Your task to perform on an android device: Set the phone to "Do not disturb". Image 0: 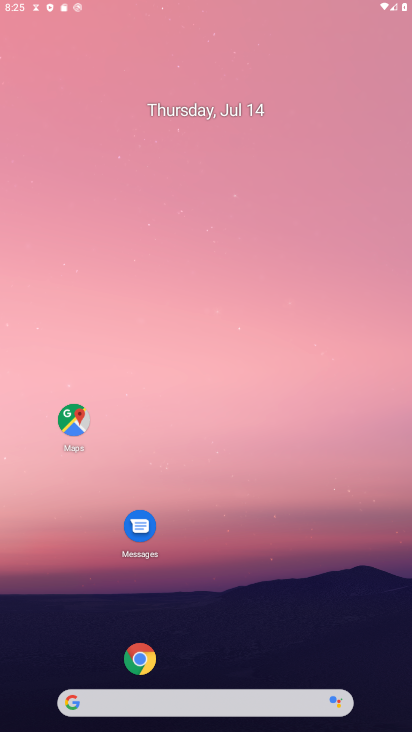
Step 0: click (164, 483)
Your task to perform on an android device: Set the phone to "Do not disturb". Image 1: 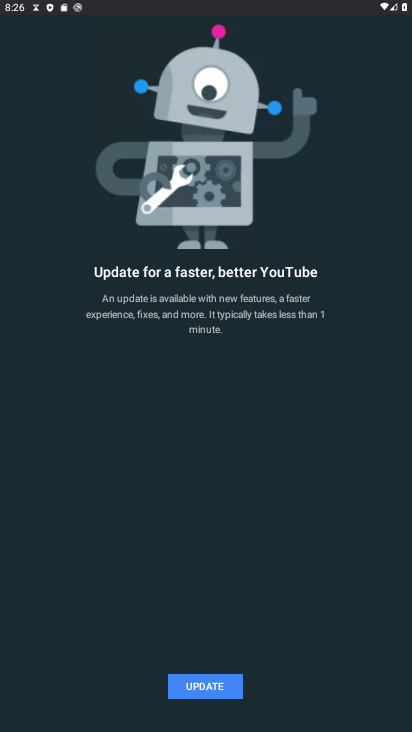
Step 1: press home button
Your task to perform on an android device: Set the phone to "Do not disturb". Image 2: 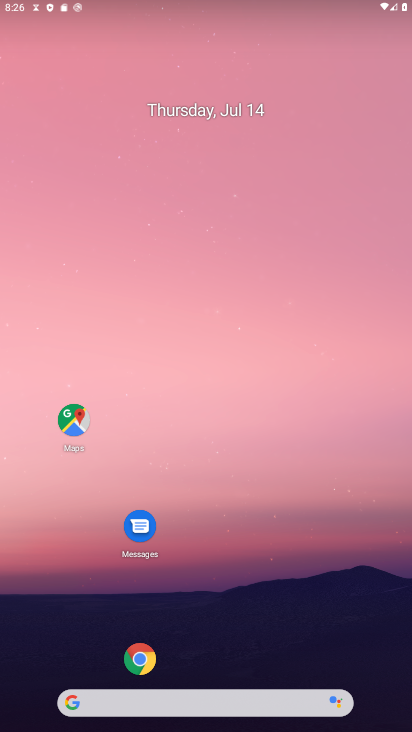
Step 2: drag from (146, 706) to (152, 471)
Your task to perform on an android device: Set the phone to "Do not disturb". Image 3: 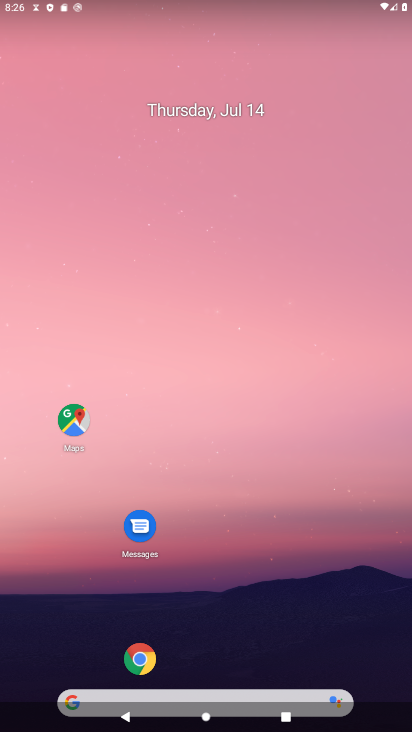
Step 3: drag from (135, 683) to (195, 393)
Your task to perform on an android device: Set the phone to "Do not disturb". Image 4: 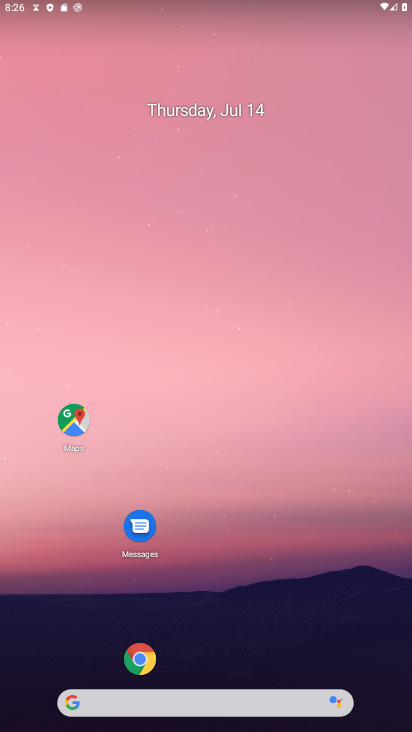
Step 4: drag from (140, 692) to (219, 376)
Your task to perform on an android device: Set the phone to "Do not disturb". Image 5: 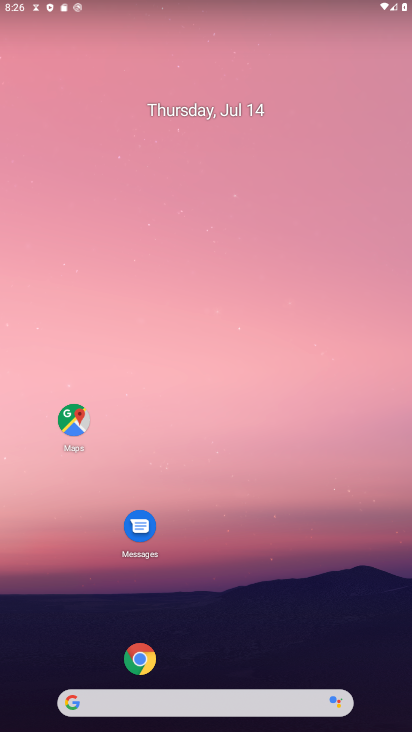
Step 5: drag from (254, 674) to (325, 108)
Your task to perform on an android device: Set the phone to "Do not disturb". Image 6: 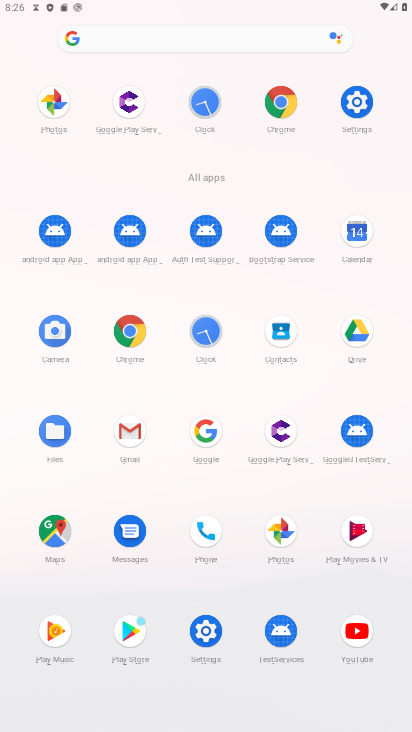
Step 6: click (351, 90)
Your task to perform on an android device: Set the phone to "Do not disturb". Image 7: 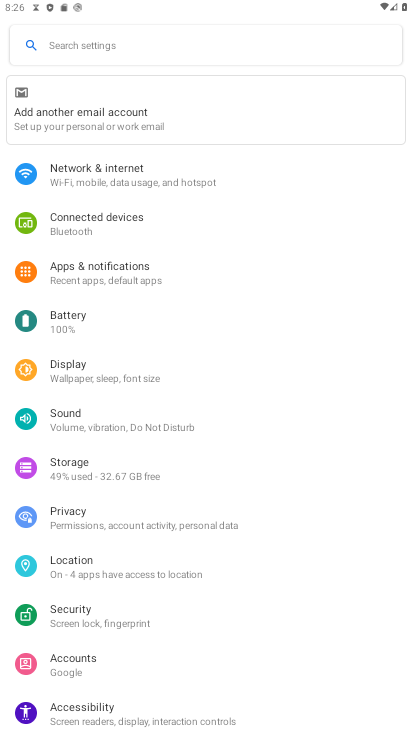
Step 7: click (114, 414)
Your task to perform on an android device: Set the phone to "Do not disturb". Image 8: 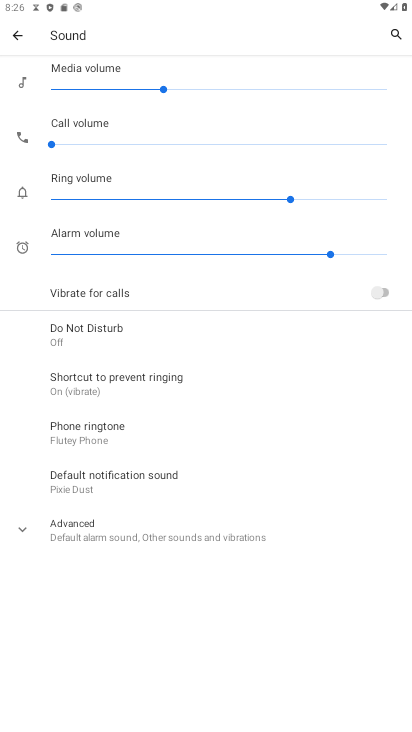
Step 8: click (66, 333)
Your task to perform on an android device: Set the phone to "Do not disturb". Image 9: 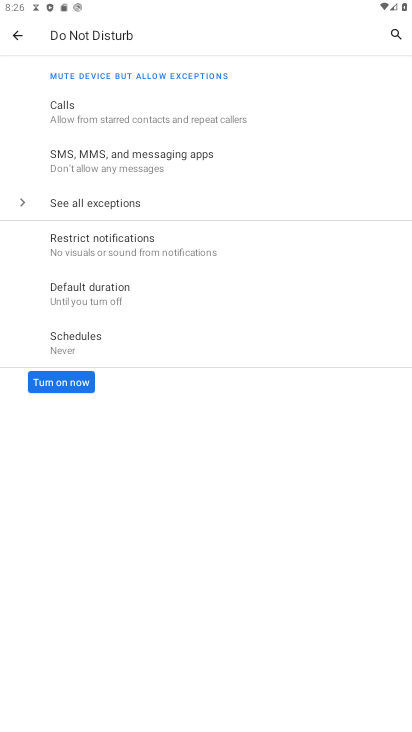
Step 9: click (53, 387)
Your task to perform on an android device: Set the phone to "Do not disturb". Image 10: 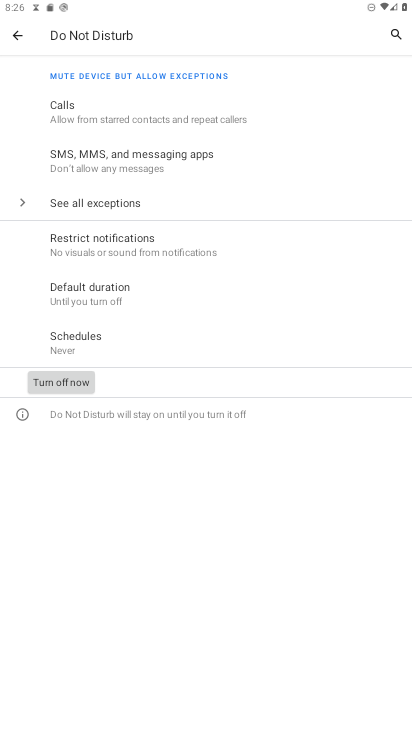
Step 10: task complete